Your task to perform on an android device: open app "Life360: Find Family & Friends" (install if not already installed) Image 0: 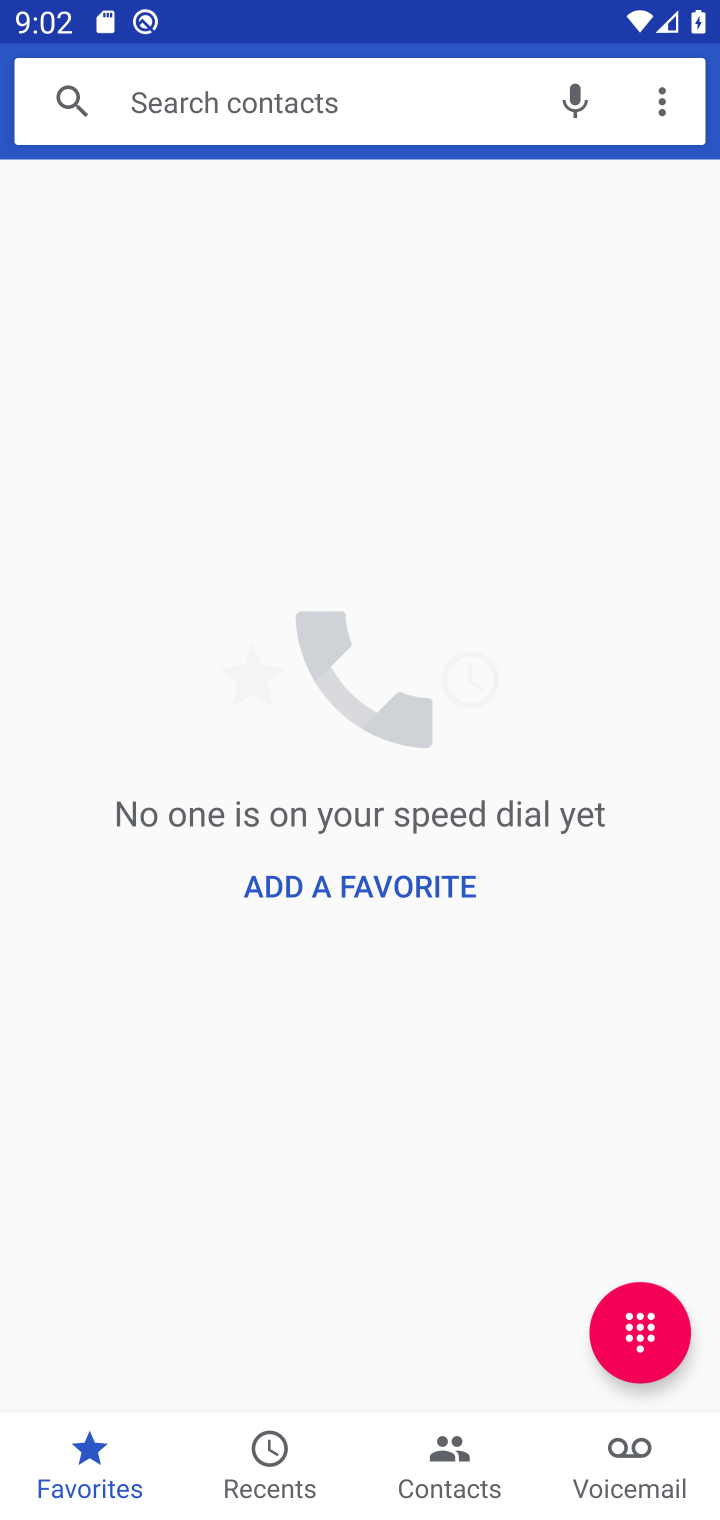
Step 0: press home button
Your task to perform on an android device: open app "Life360: Find Family & Friends" (install if not already installed) Image 1: 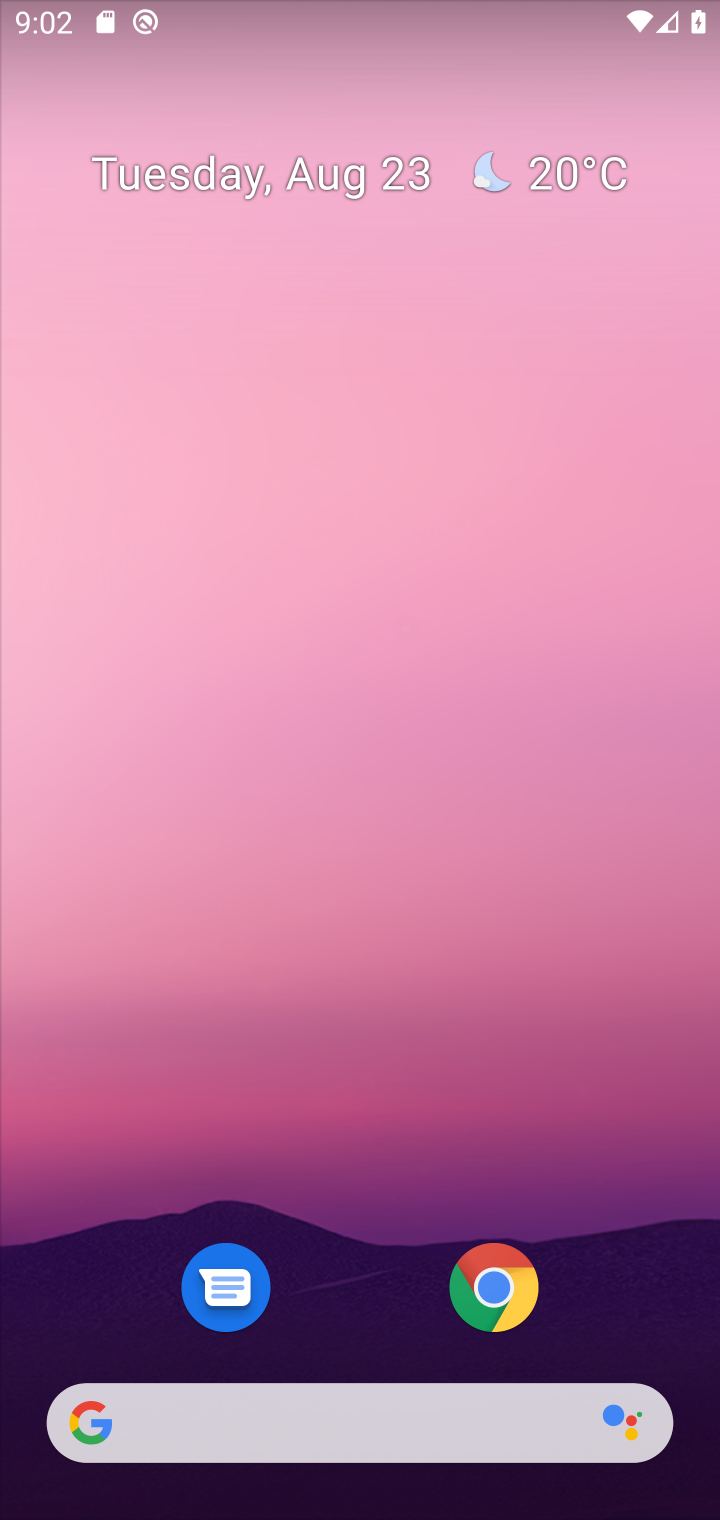
Step 1: drag from (344, 976) to (371, 115)
Your task to perform on an android device: open app "Life360: Find Family & Friends" (install if not already installed) Image 2: 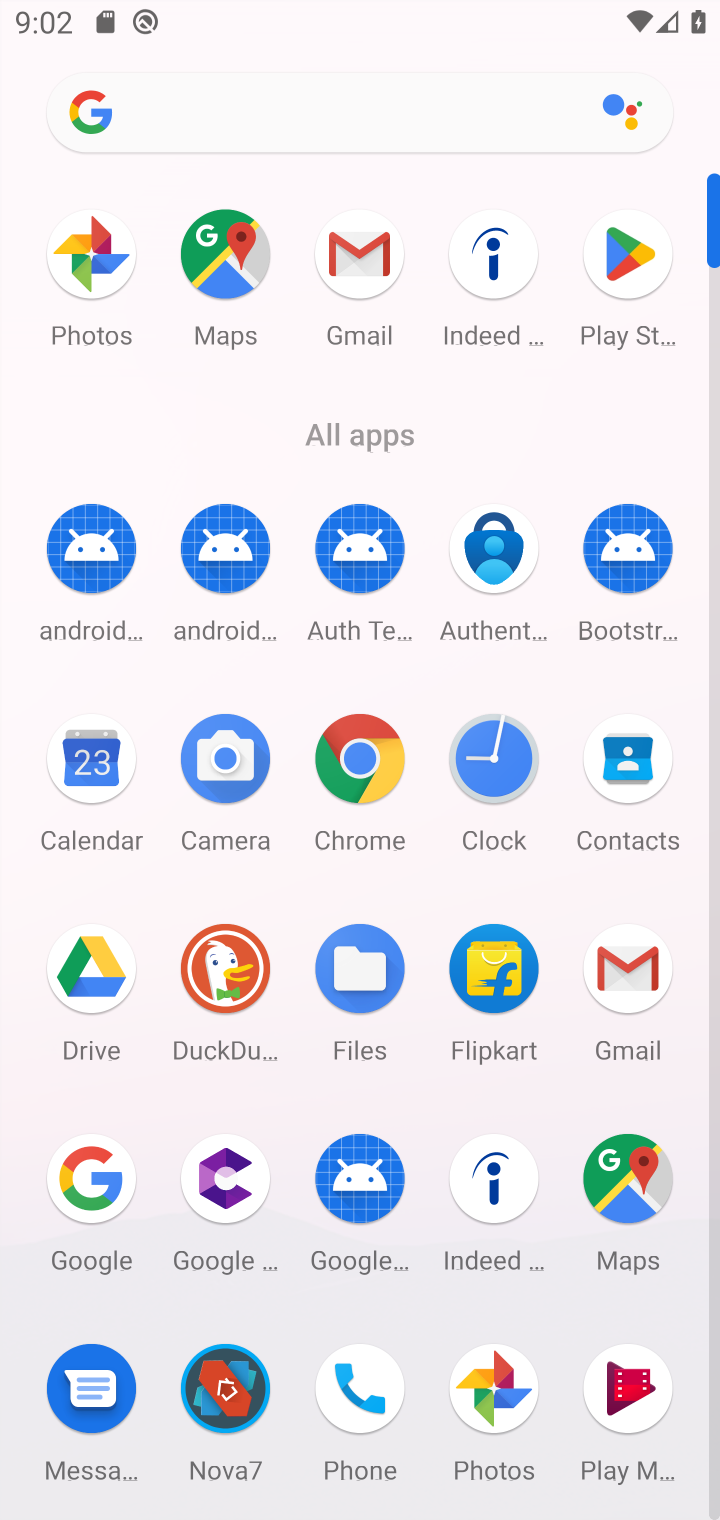
Step 2: click (635, 258)
Your task to perform on an android device: open app "Life360: Find Family & Friends" (install if not already installed) Image 3: 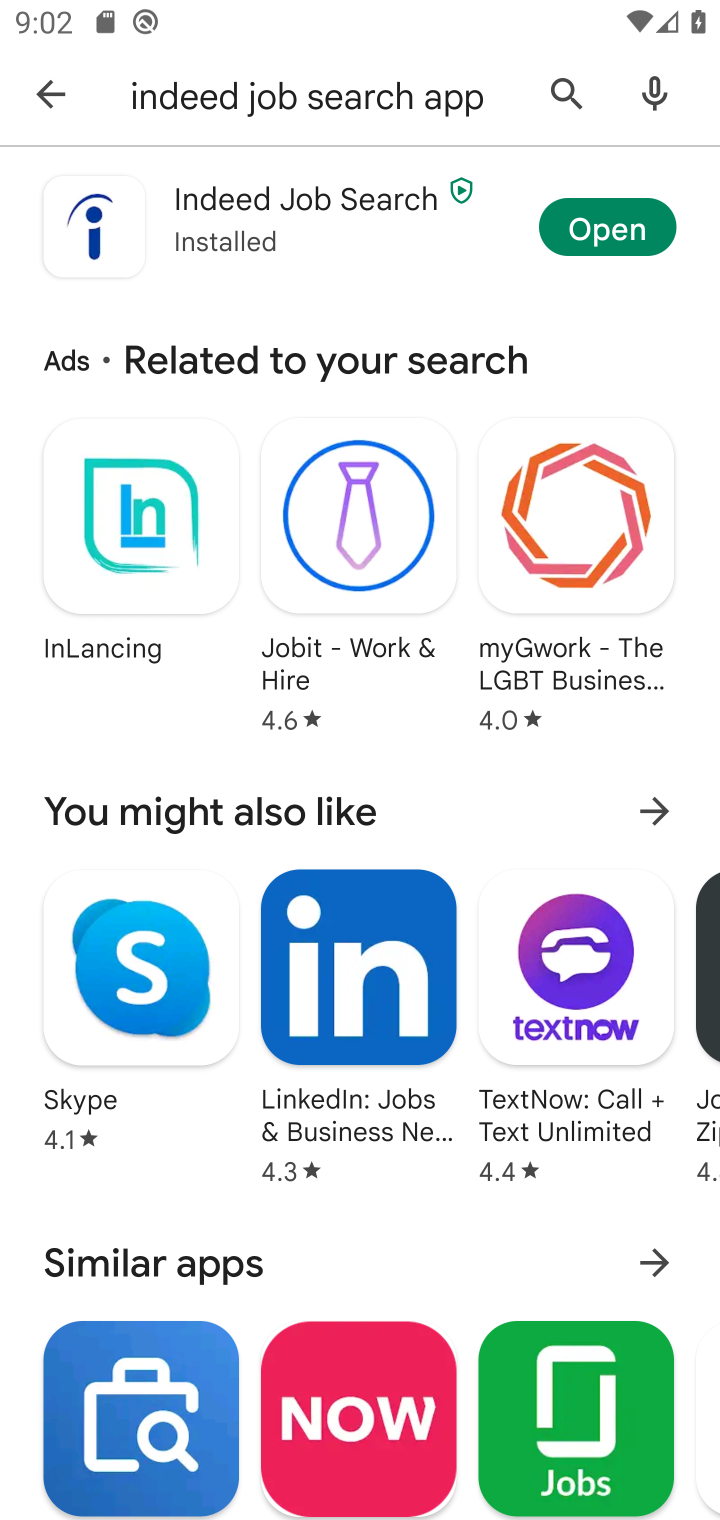
Step 3: click (560, 82)
Your task to perform on an android device: open app "Life360: Find Family & Friends" (install if not already installed) Image 4: 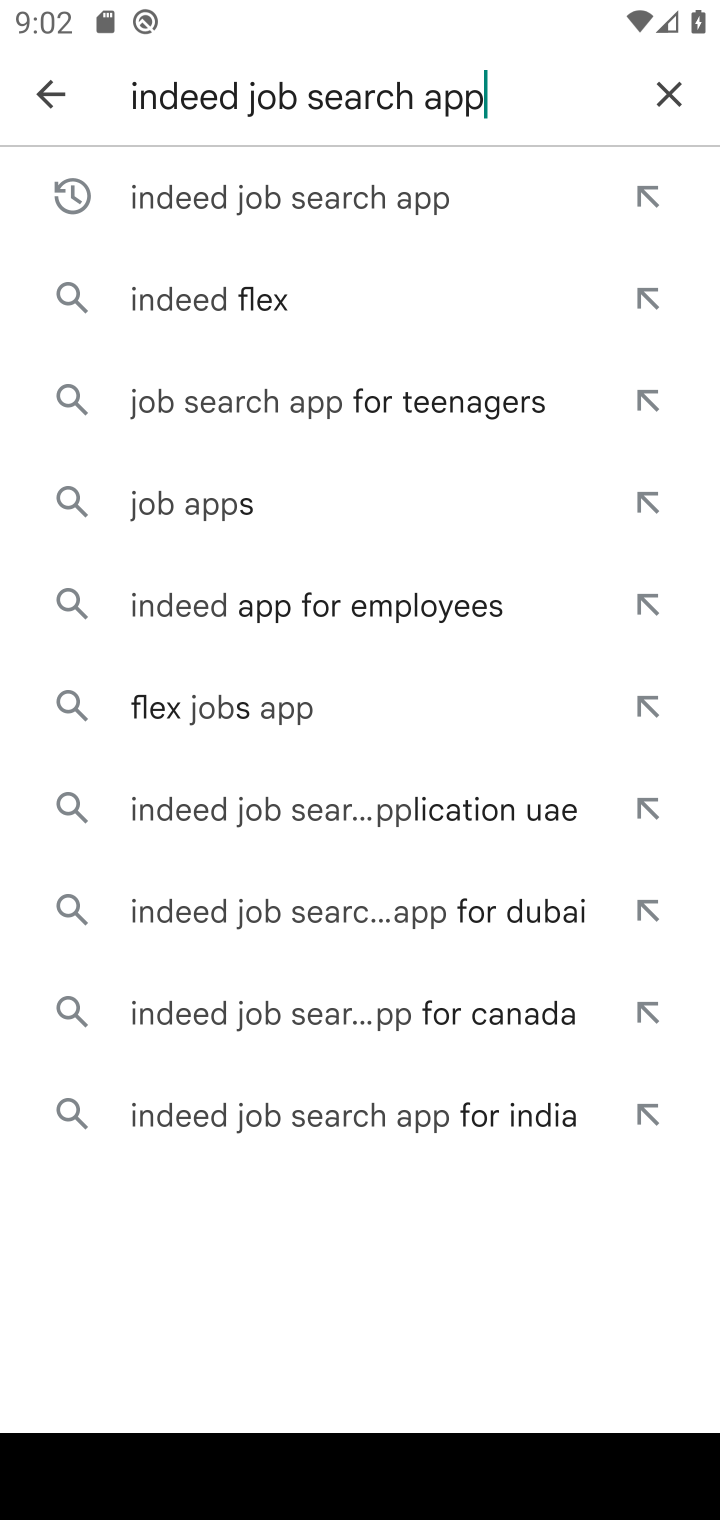
Step 4: click (680, 82)
Your task to perform on an android device: open app "Life360: Find Family & Friends" (install if not already installed) Image 5: 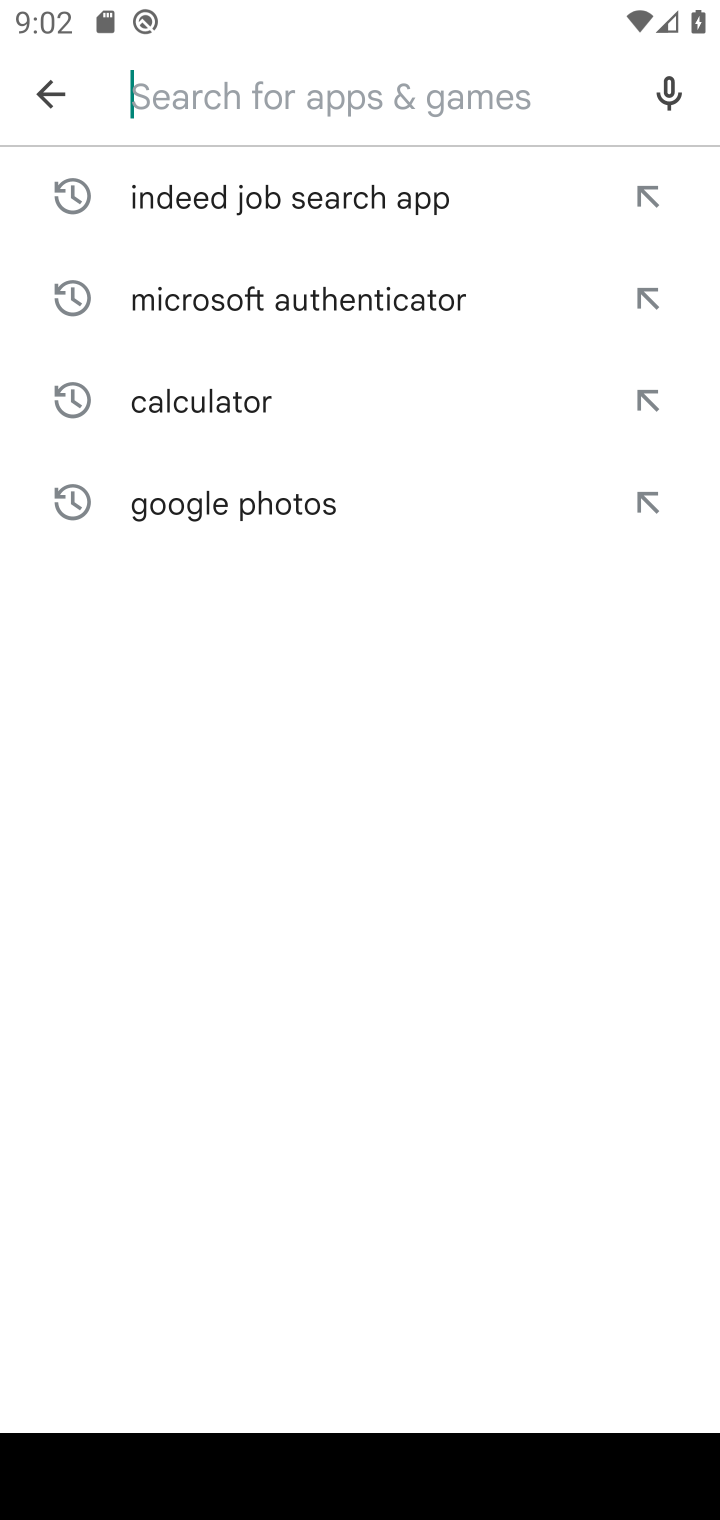
Step 5: type "Life360: Find Family & Friends"
Your task to perform on an android device: open app "Life360: Find Family & Friends" (install if not already installed) Image 6: 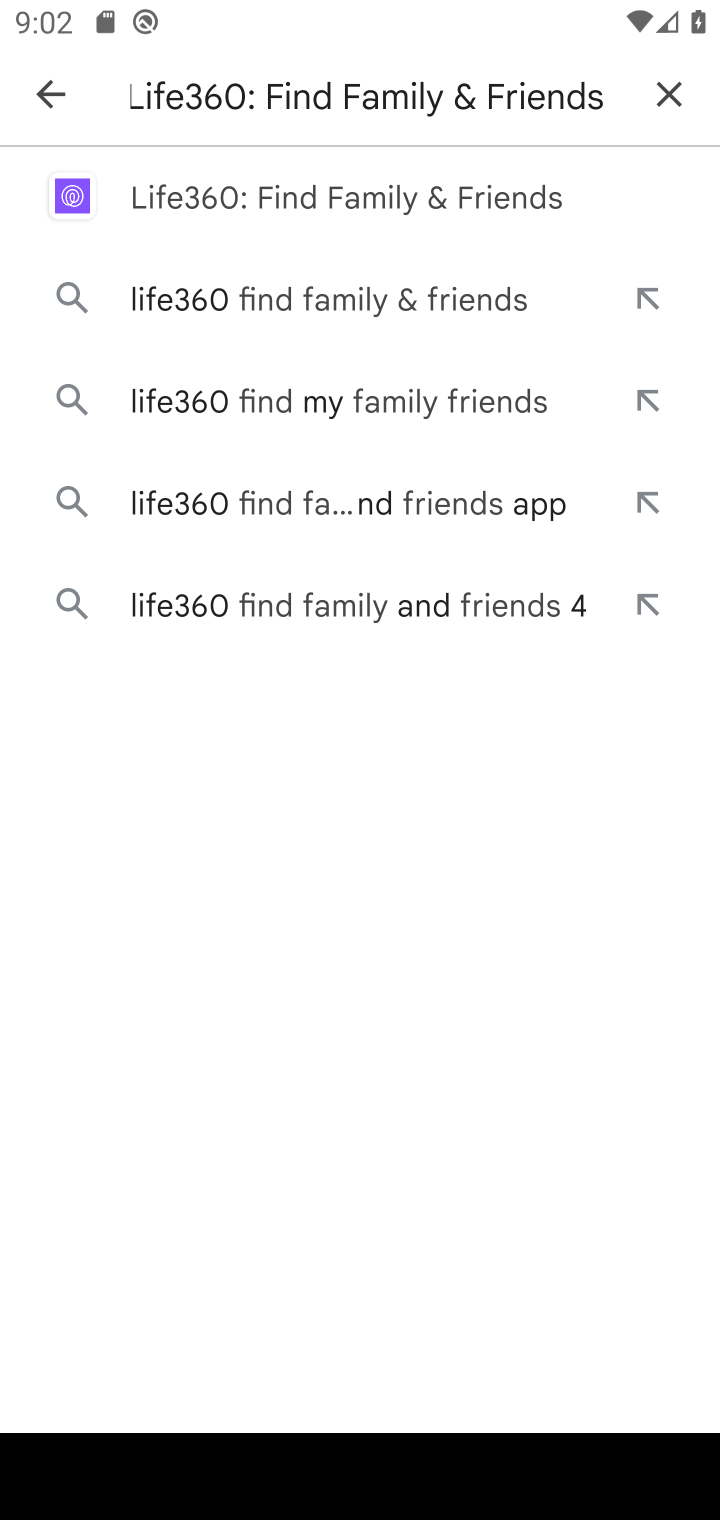
Step 6: click (237, 192)
Your task to perform on an android device: open app "Life360: Find Family & Friends" (install if not already installed) Image 7: 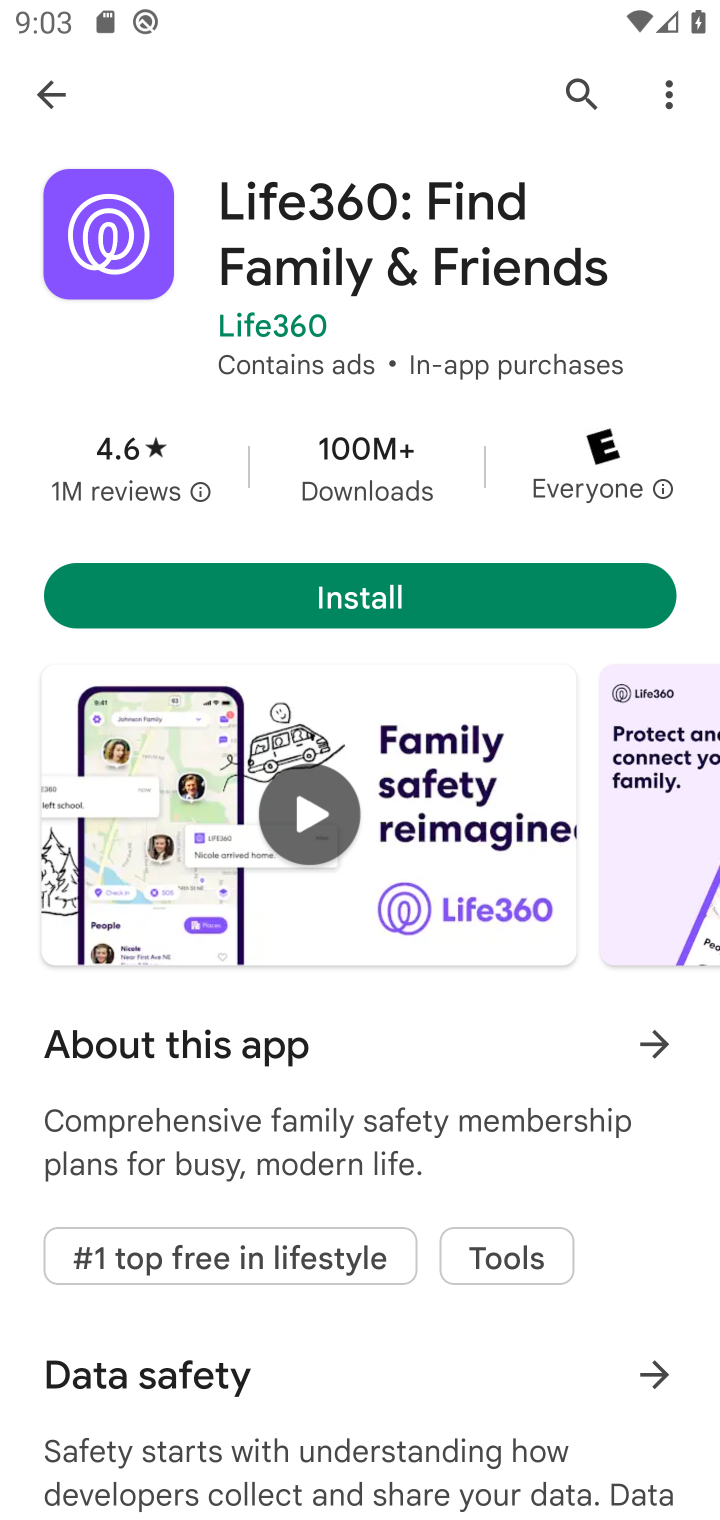
Step 7: click (307, 590)
Your task to perform on an android device: open app "Life360: Find Family & Friends" (install if not already installed) Image 8: 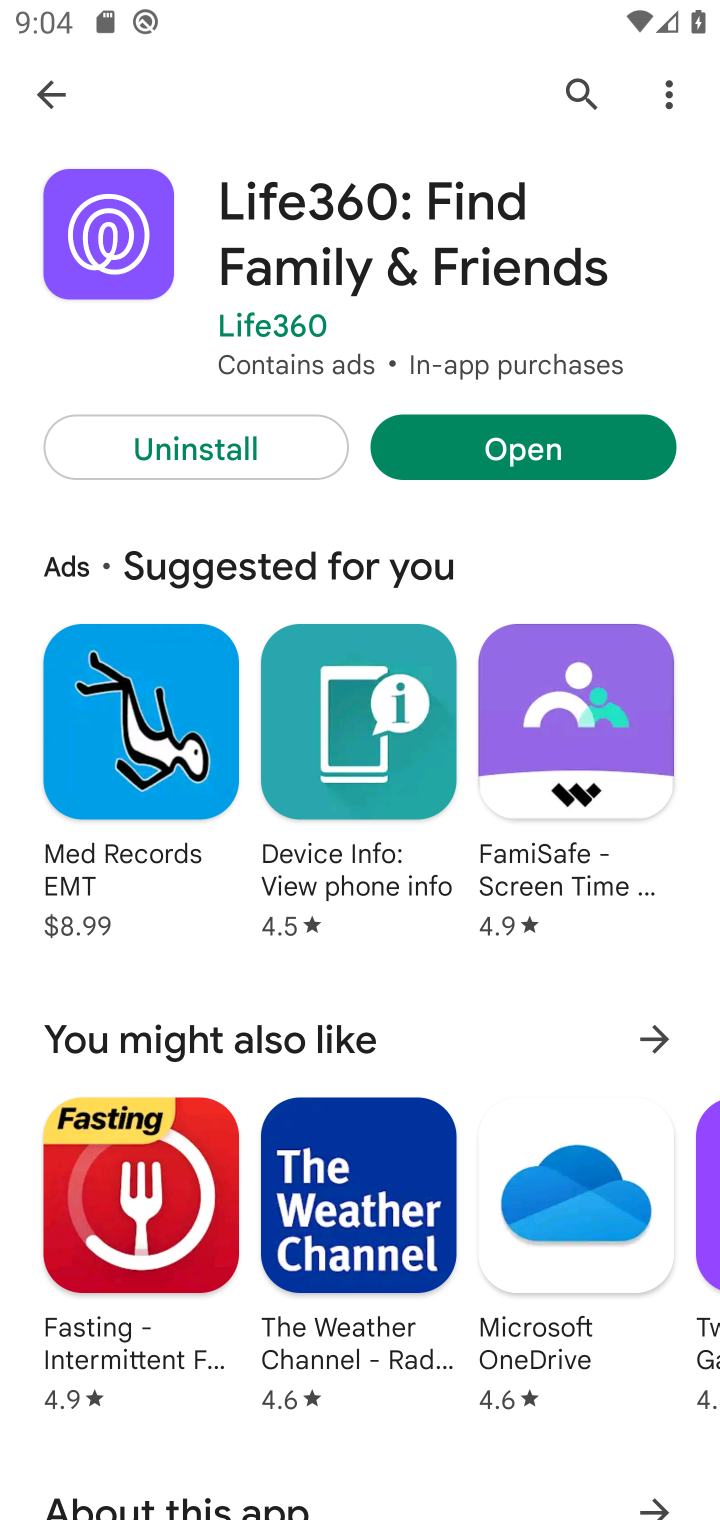
Step 8: click (554, 456)
Your task to perform on an android device: open app "Life360: Find Family & Friends" (install if not already installed) Image 9: 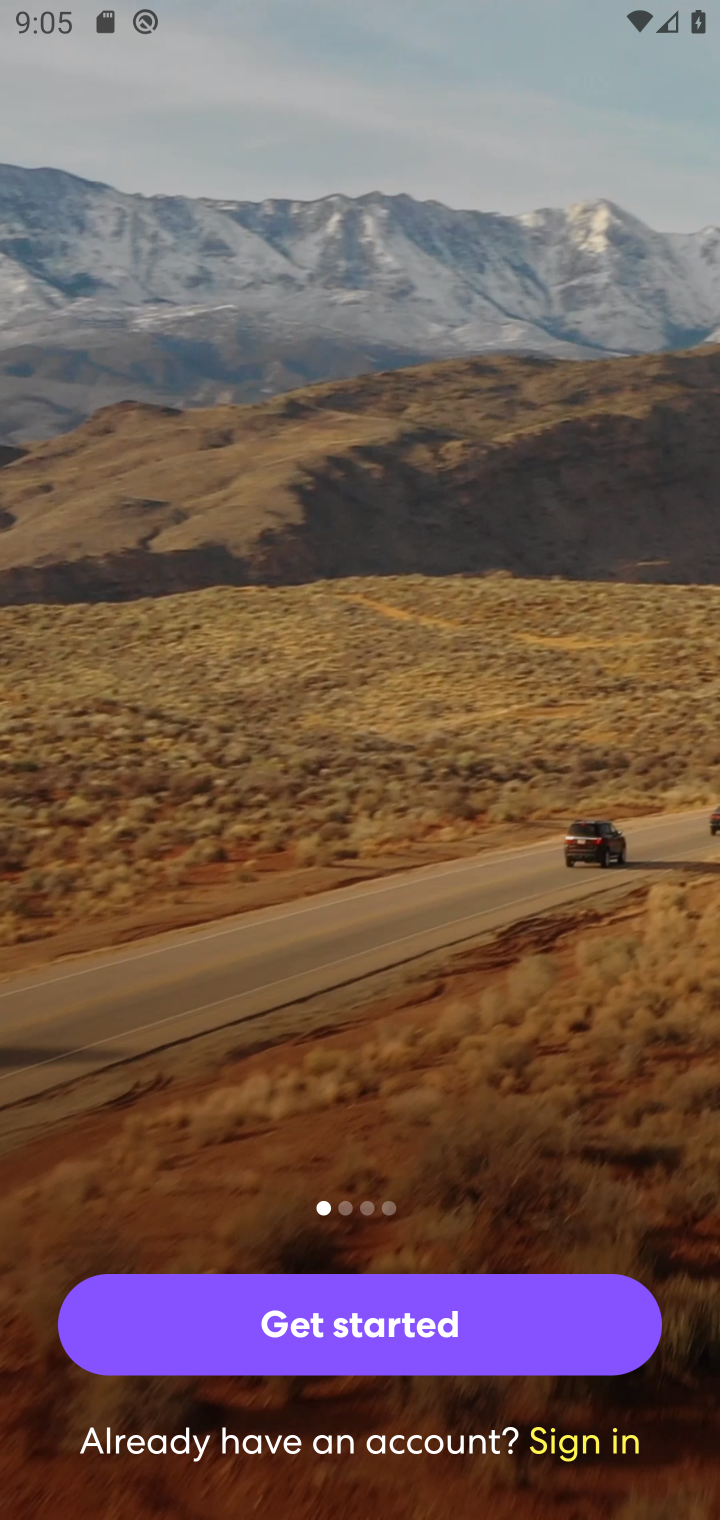
Step 9: task complete